Your task to perform on an android device: Open Chrome and go to the settings page Image 0: 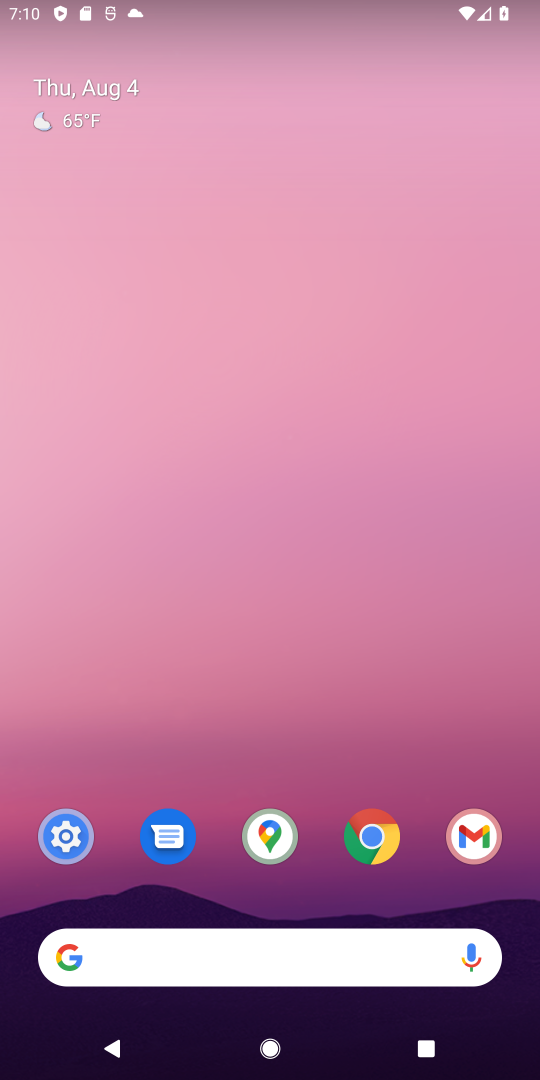
Step 0: click (68, 831)
Your task to perform on an android device: Open Chrome and go to the settings page Image 1: 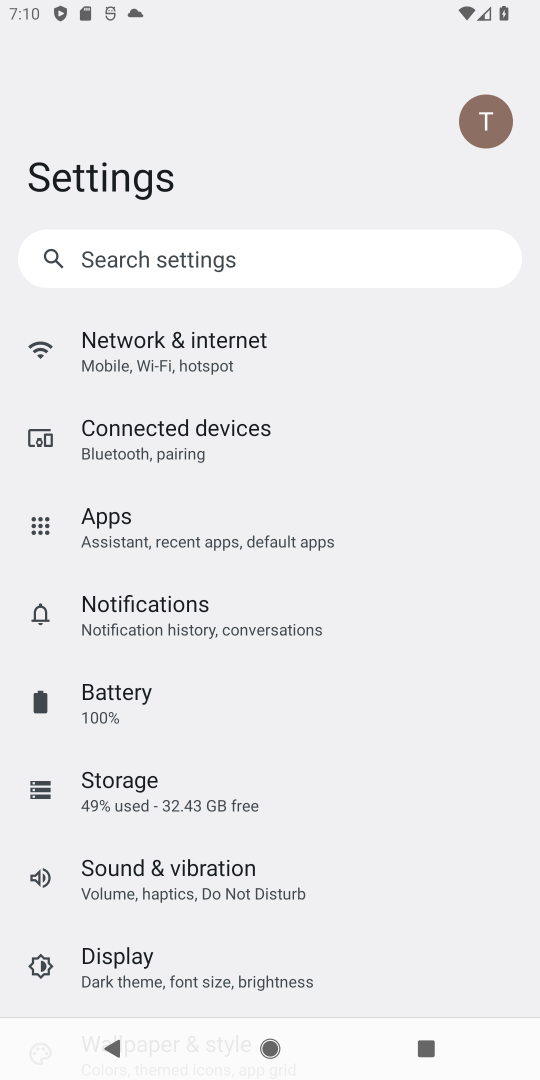
Step 1: press back button
Your task to perform on an android device: Open Chrome and go to the settings page Image 2: 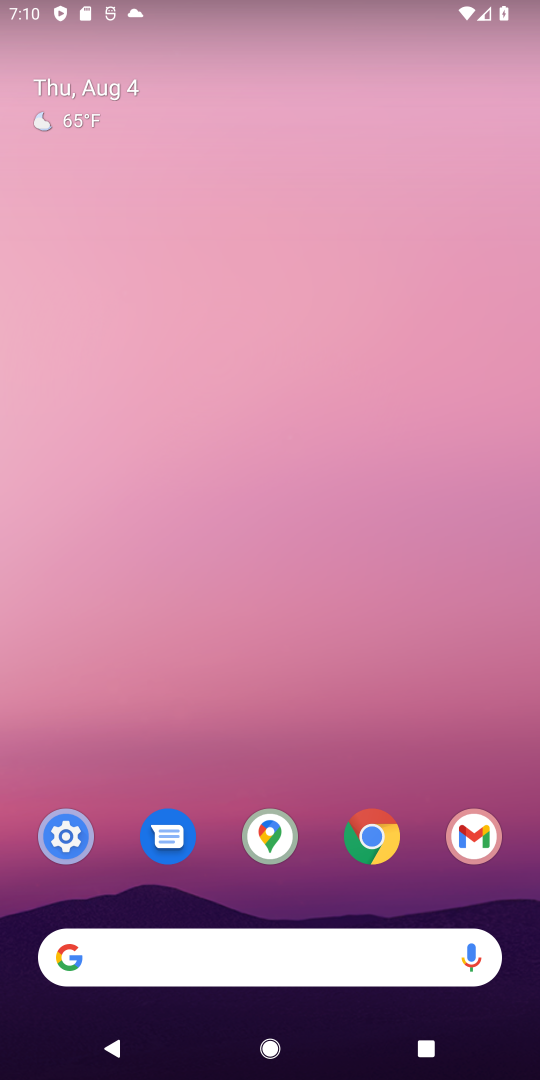
Step 2: click (369, 825)
Your task to perform on an android device: Open Chrome and go to the settings page Image 3: 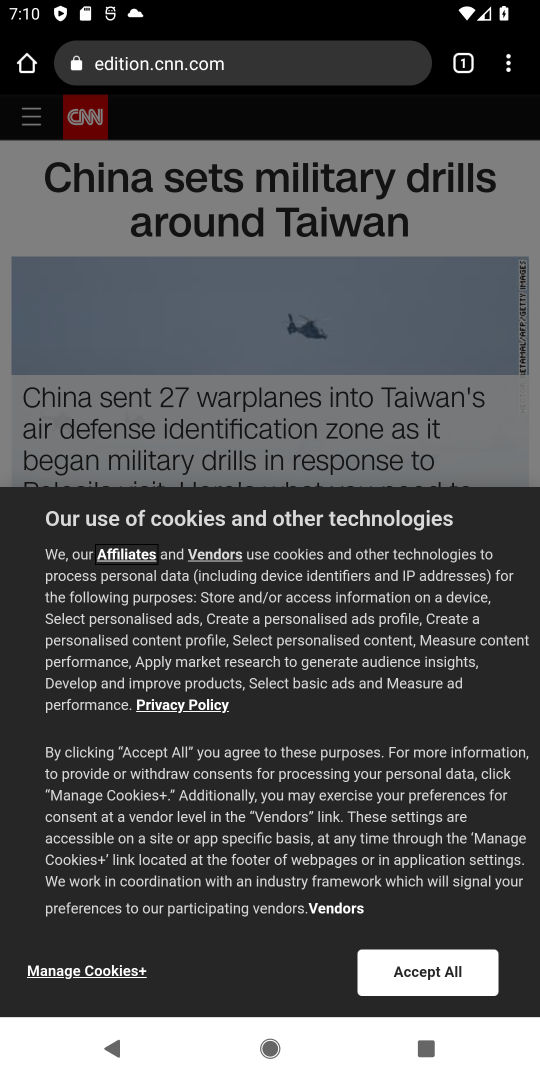
Step 3: task complete